Your task to perform on an android device: Open network settings Image 0: 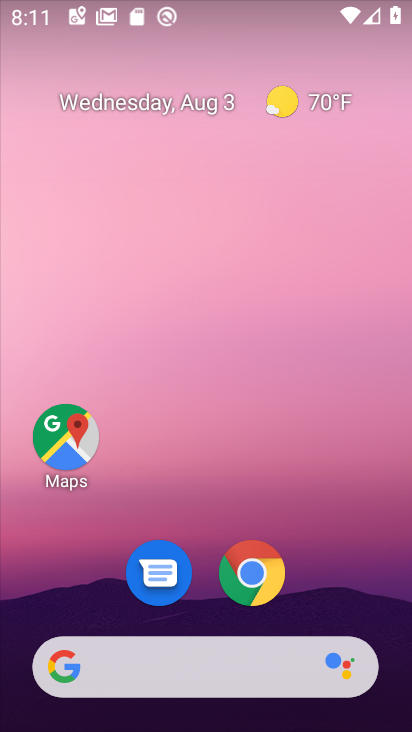
Step 0: drag from (307, 615) to (270, 0)
Your task to perform on an android device: Open network settings Image 1: 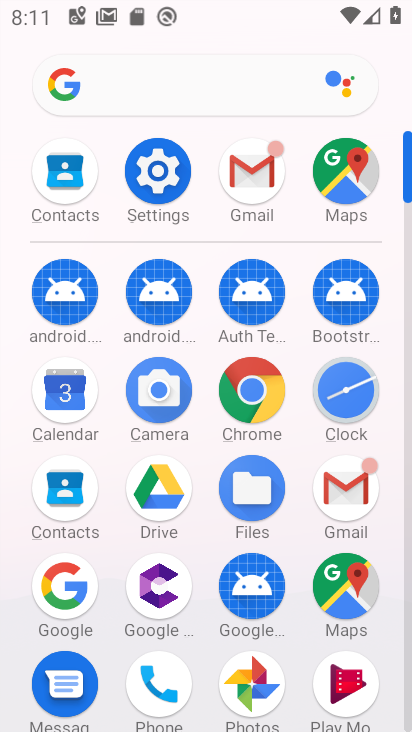
Step 1: click (153, 181)
Your task to perform on an android device: Open network settings Image 2: 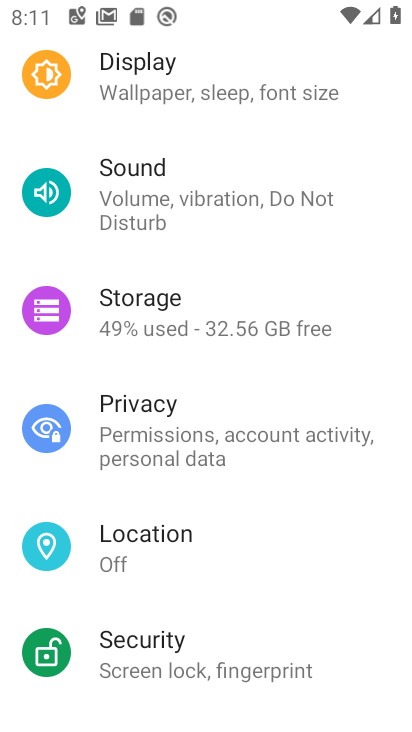
Step 2: drag from (398, 150) to (403, 573)
Your task to perform on an android device: Open network settings Image 3: 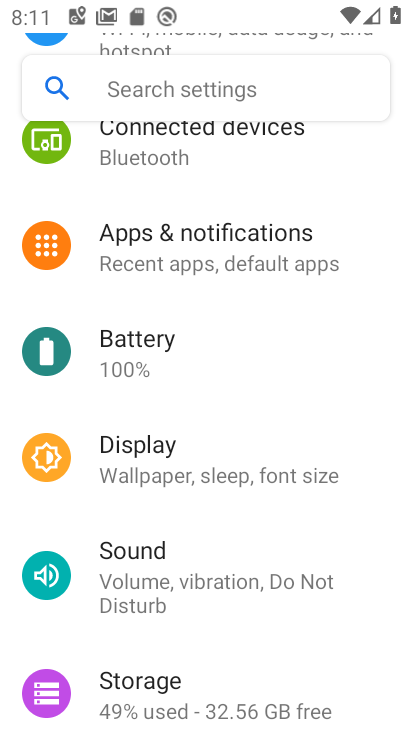
Step 3: drag from (380, 194) to (388, 560)
Your task to perform on an android device: Open network settings Image 4: 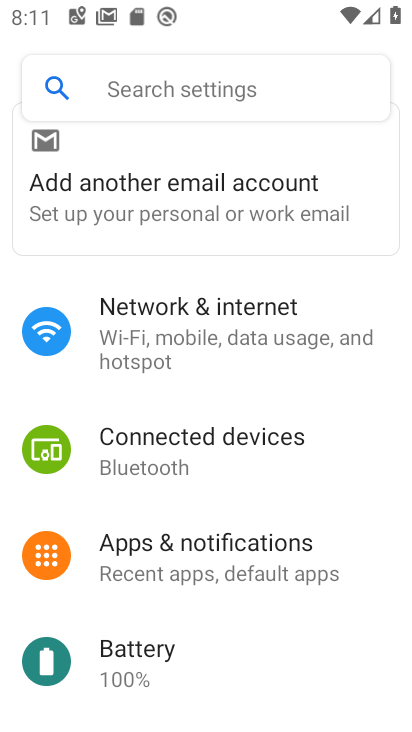
Step 4: click (164, 344)
Your task to perform on an android device: Open network settings Image 5: 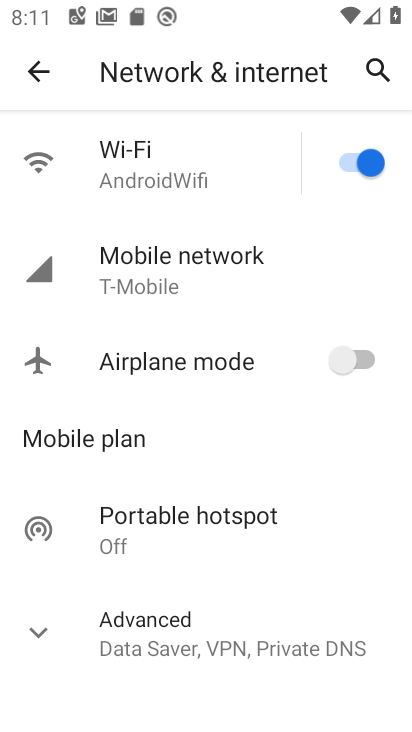
Step 5: click (135, 289)
Your task to perform on an android device: Open network settings Image 6: 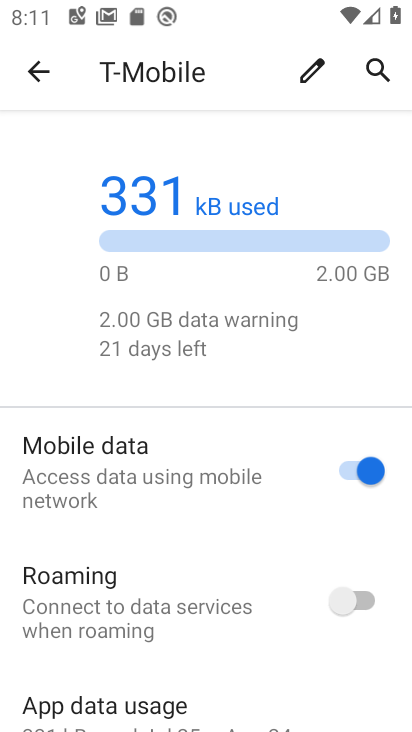
Step 6: task complete